Your task to perform on an android device: turn on improve location accuracy Image 0: 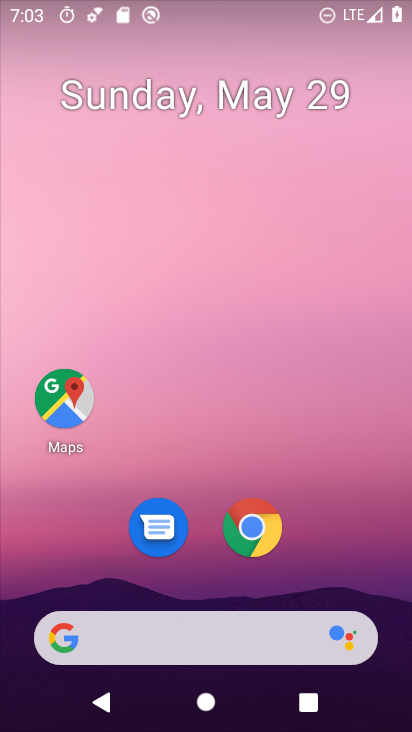
Step 0: drag from (354, 587) to (301, 55)
Your task to perform on an android device: turn on improve location accuracy Image 1: 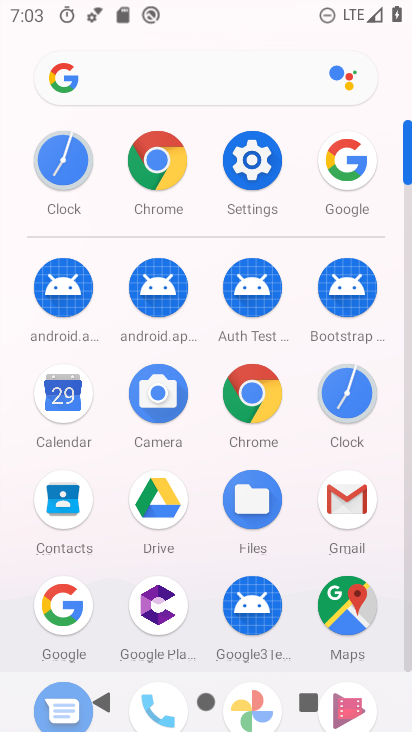
Step 1: click (256, 178)
Your task to perform on an android device: turn on improve location accuracy Image 2: 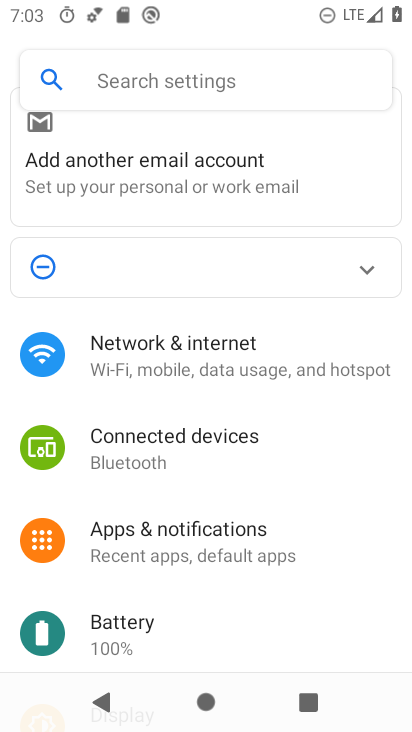
Step 2: drag from (186, 583) to (202, 138)
Your task to perform on an android device: turn on improve location accuracy Image 3: 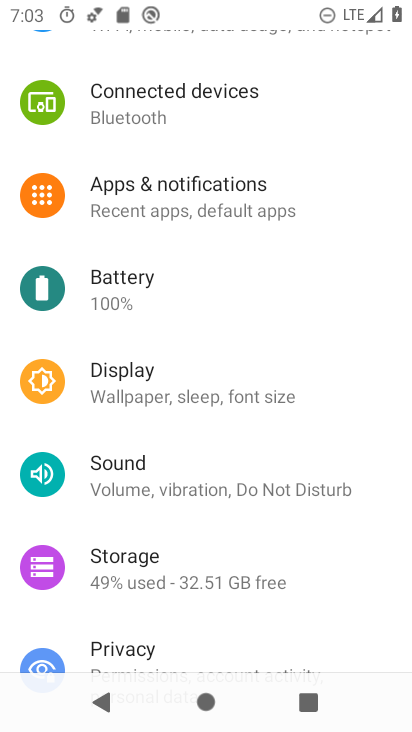
Step 3: drag from (167, 616) to (198, 203)
Your task to perform on an android device: turn on improve location accuracy Image 4: 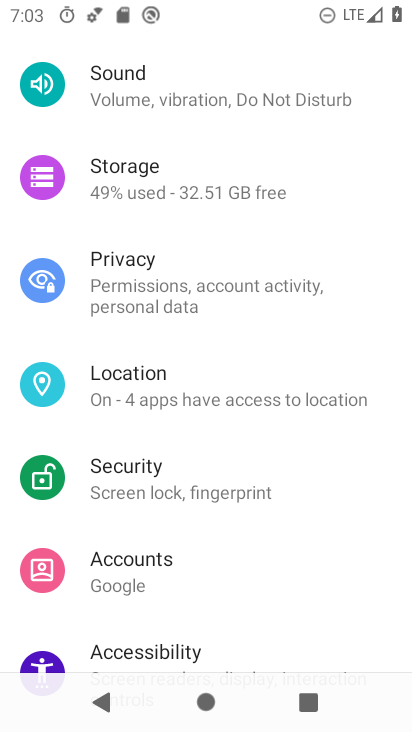
Step 4: click (139, 384)
Your task to perform on an android device: turn on improve location accuracy Image 5: 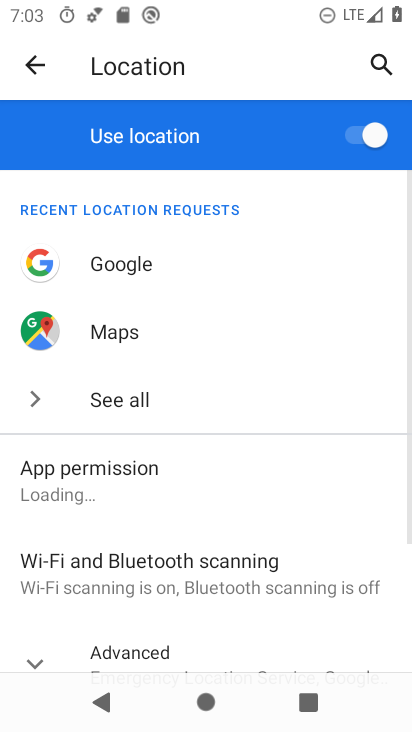
Step 5: click (157, 647)
Your task to perform on an android device: turn on improve location accuracy Image 6: 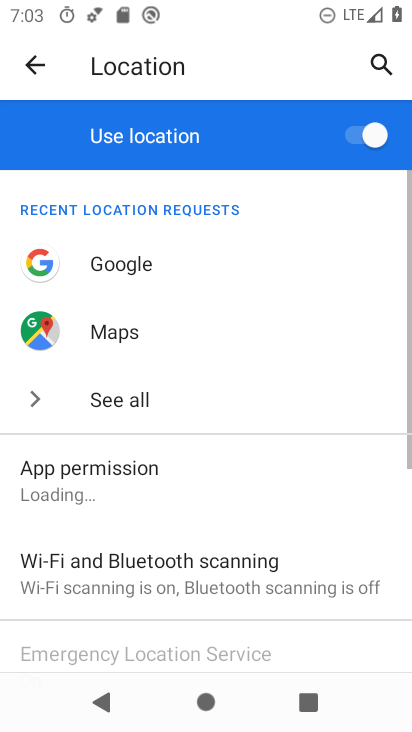
Step 6: drag from (183, 636) to (230, 170)
Your task to perform on an android device: turn on improve location accuracy Image 7: 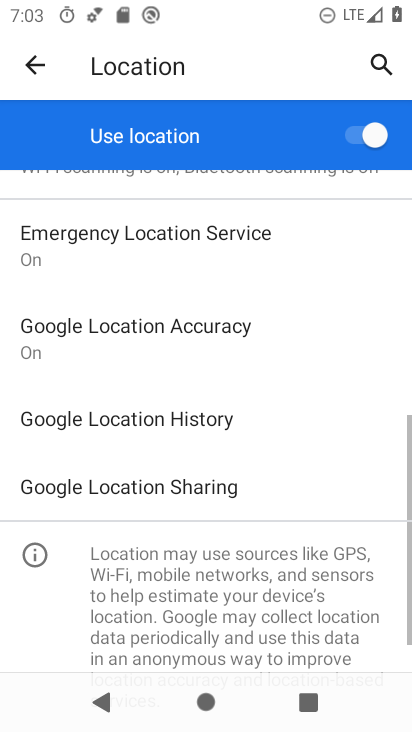
Step 7: click (180, 349)
Your task to perform on an android device: turn on improve location accuracy Image 8: 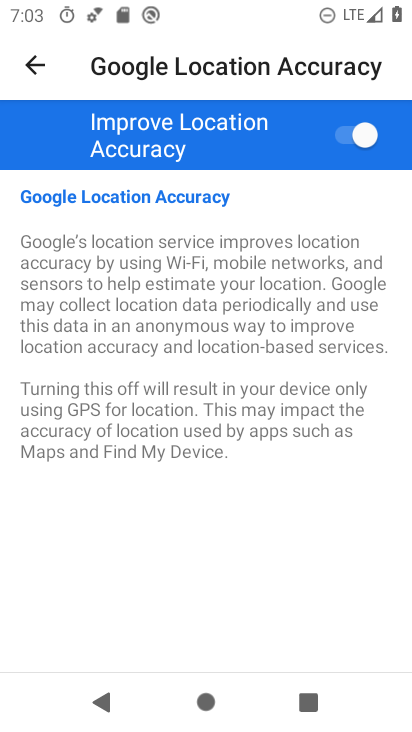
Step 8: task complete